Your task to perform on an android device: uninstall "Fetch Rewards" Image 0: 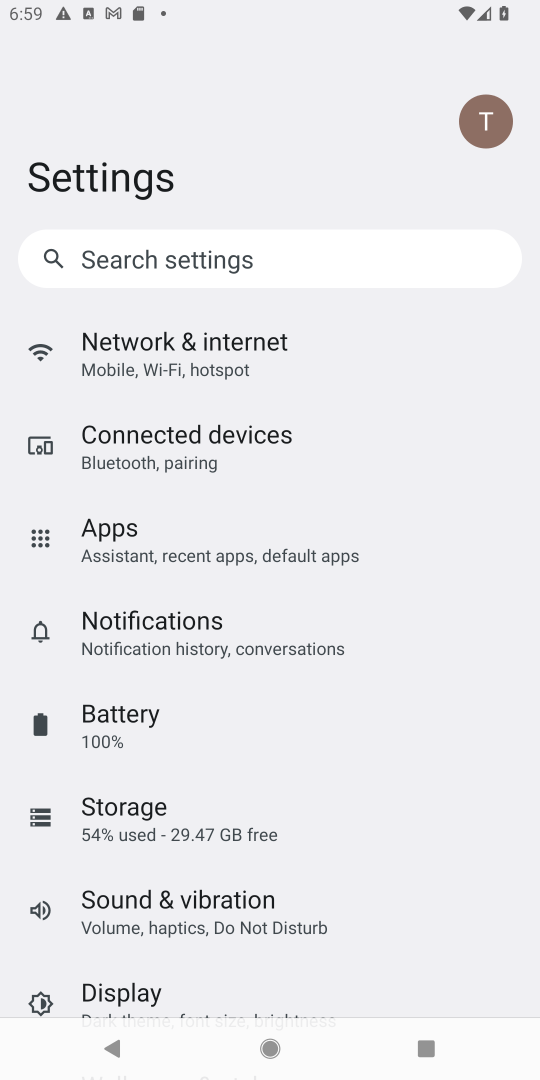
Step 0: press home button
Your task to perform on an android device: uninstall "Fetch Rewards" Image 1: 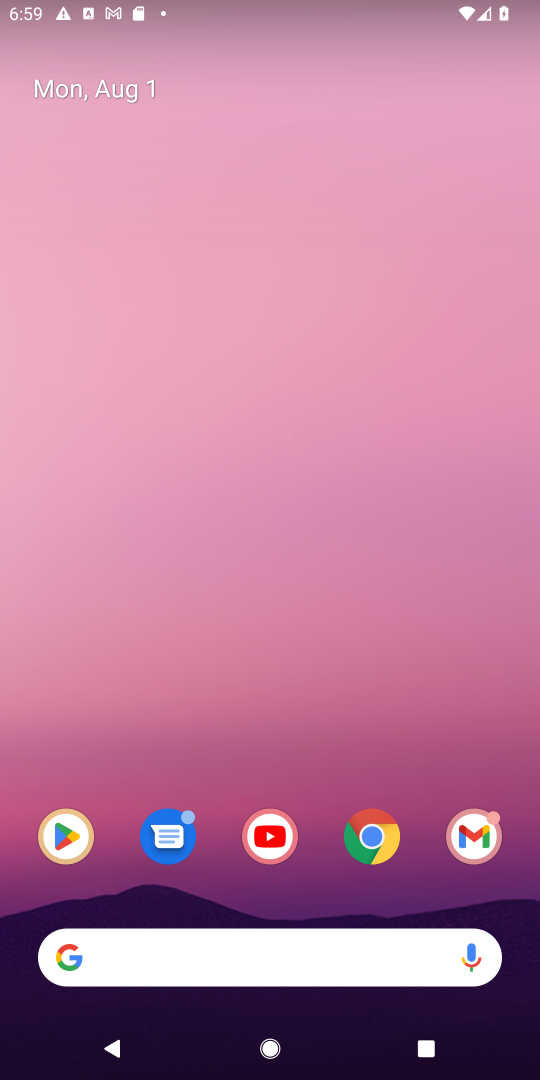
Step 1: click (59, 835)
Your task to perform on an android device: uninstall "Fetch Rewards" Image 2: 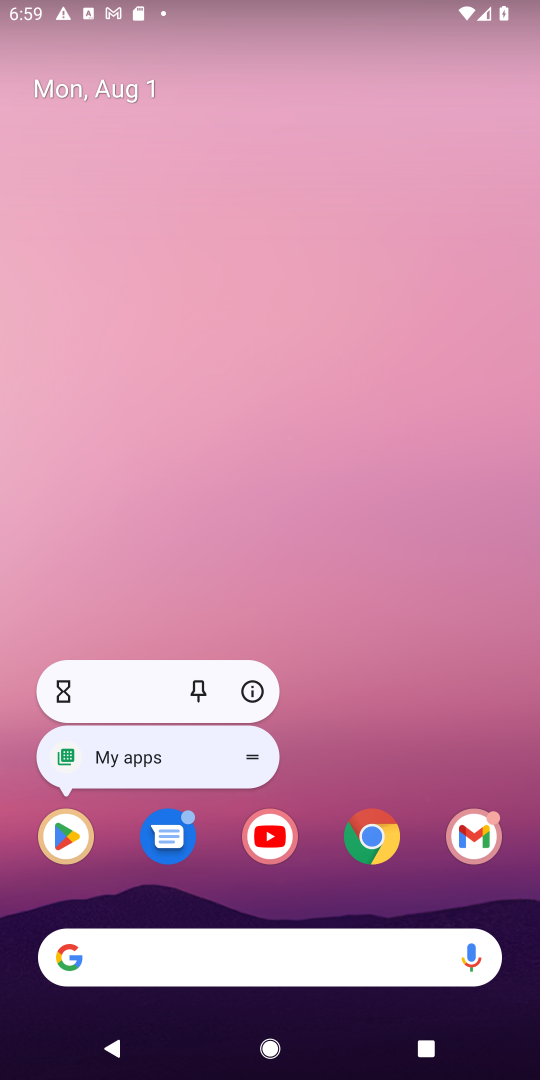
Step 2: click (57, 840)
Your task to perform on an android device: uninstall "Fetch Rewards" Image 3: 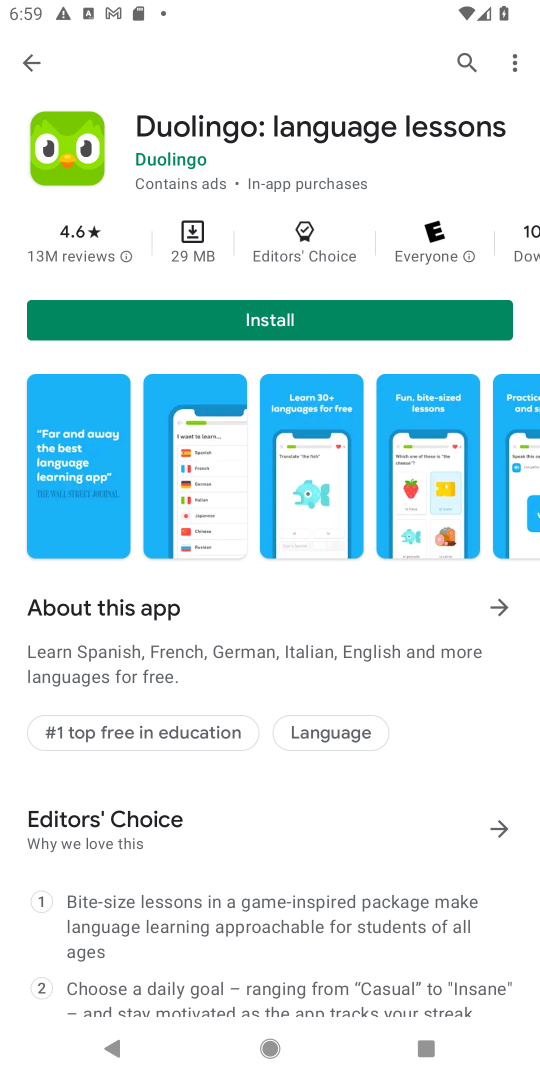
Step 3: click (462, 57)
Your task to perform on an android device: uninstall "Fetch Rewards" Image 4: 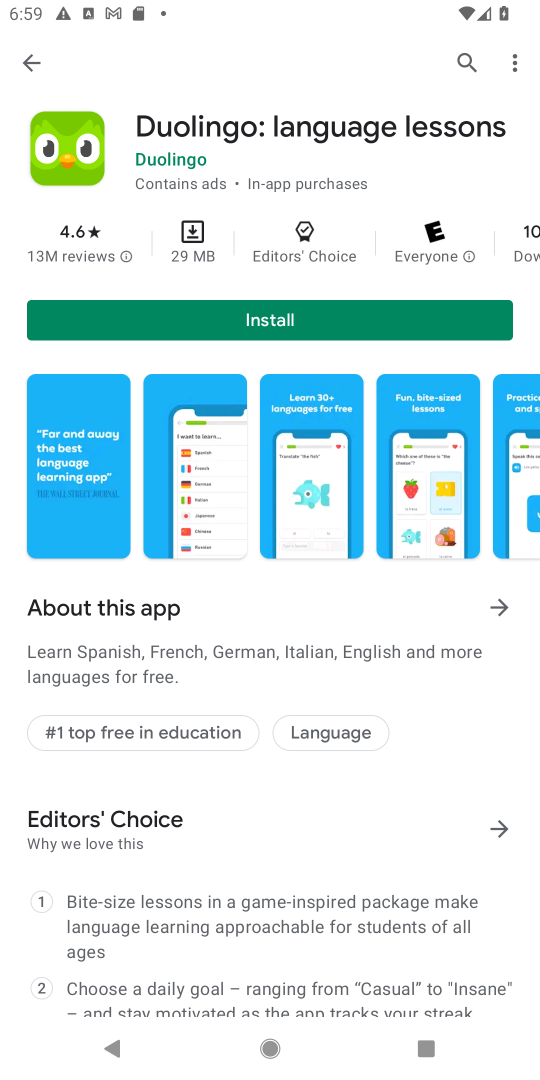
Step 4: click (459, 64)
Your task to perform on an android device: uninstall "Fetch Rewards" Image 5: 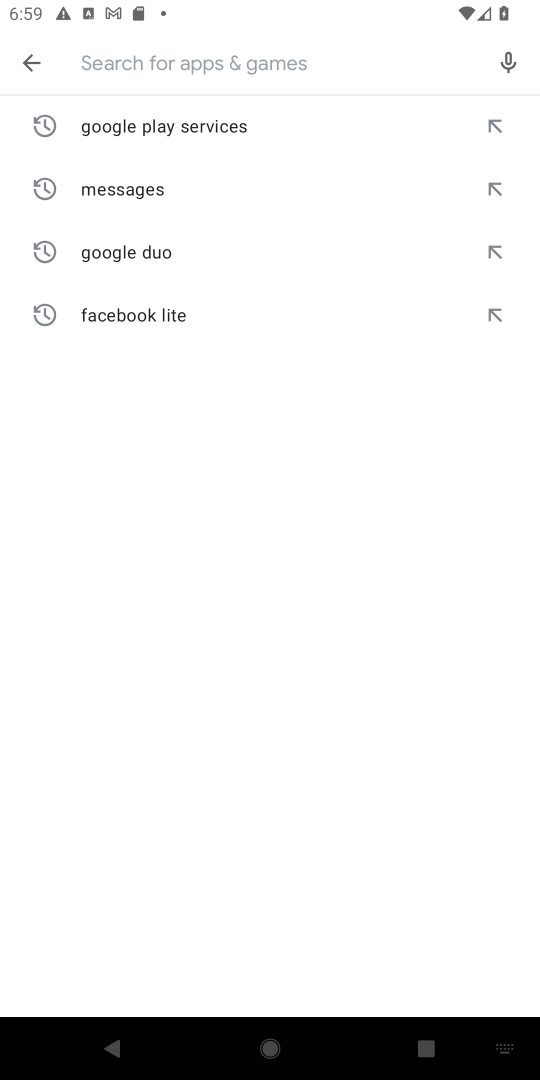
Step 5: type "Fetch Rewards"
Your task to perform on an android device: uninstall "Fetch Rewards" Image 6: 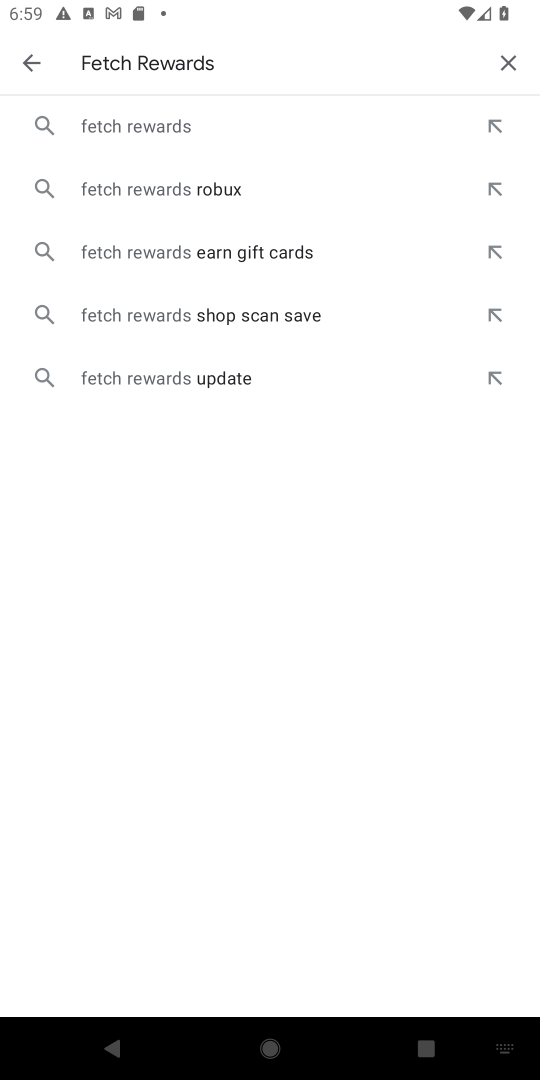
Step 6: click (99, 132)
Your task to perform on an android device: uninstall "Fetch Rewards" Image 7: 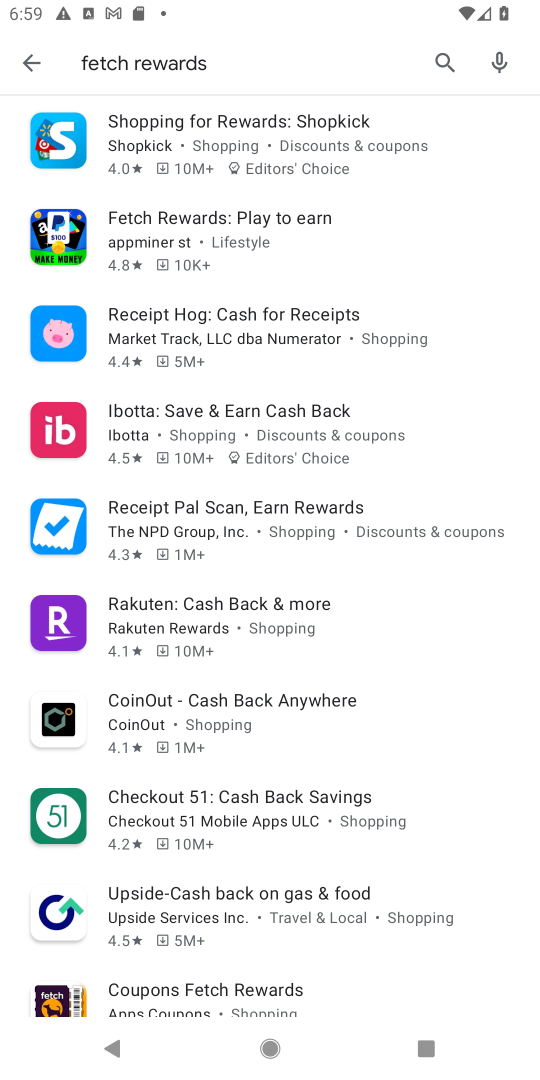
Step 7: click (203, 232)
Your task to perform on an android device: uninstall "Fetch Rewards" Image 8: 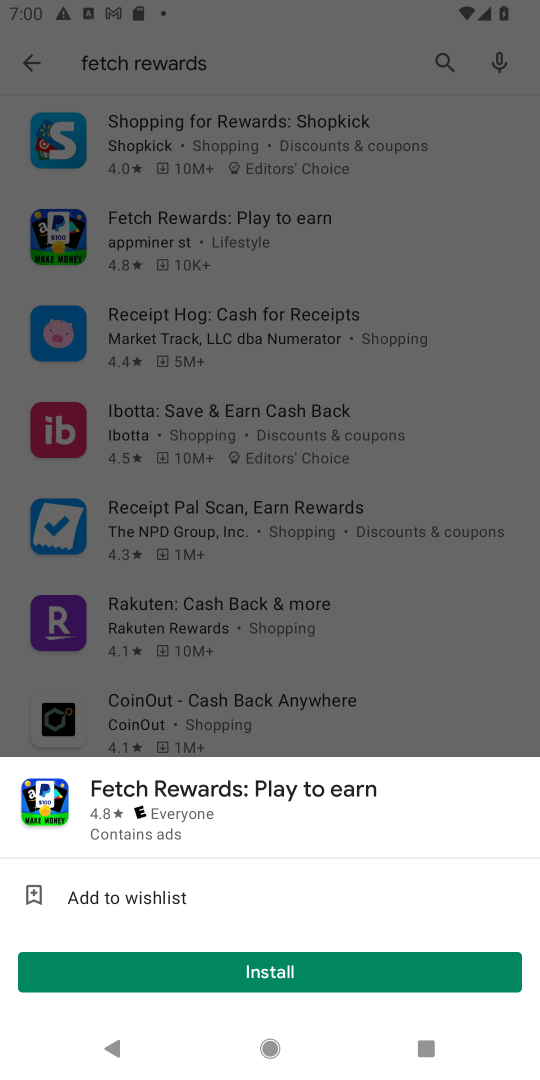
Step 8: task complete